Your task to perform on an android device: Open the Play Movies app and select the watchlist tab. Image 0: 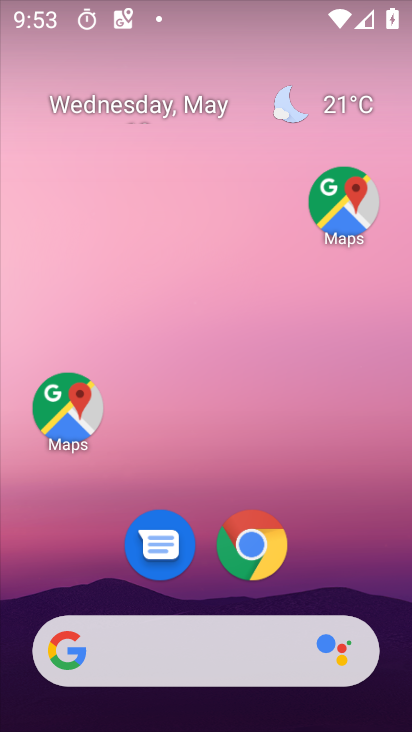
Step 0: drag from (311, 571) to (252, 65)
Your task to perform on an android device: Open the Play Movies app and select the watchlist tab. Image 1: 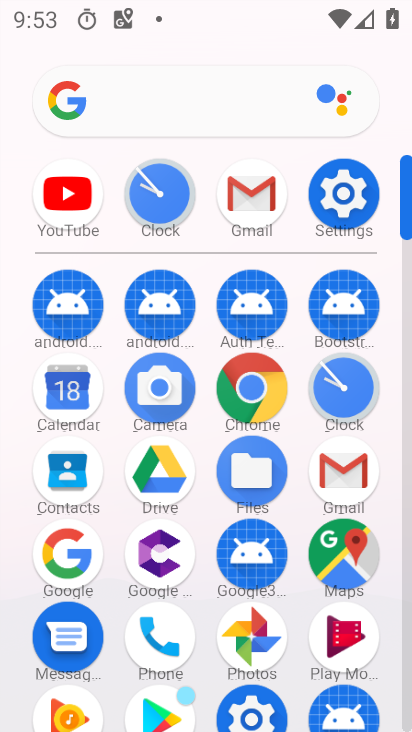
Step 1: click (356, 631)
Your task to perform on an android device: Open the Play Movies app and select the watchlist tab. Image 2: 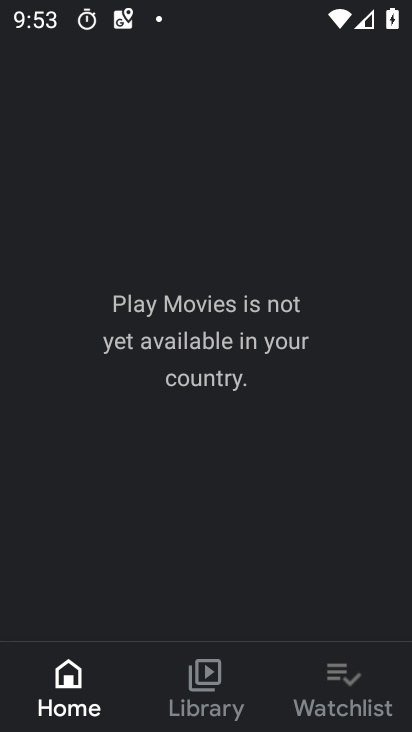
Step 2: click (335, 691)
Your task to perform on an android device: Open the Play Movies app and select the watchlist tab. Image 3: 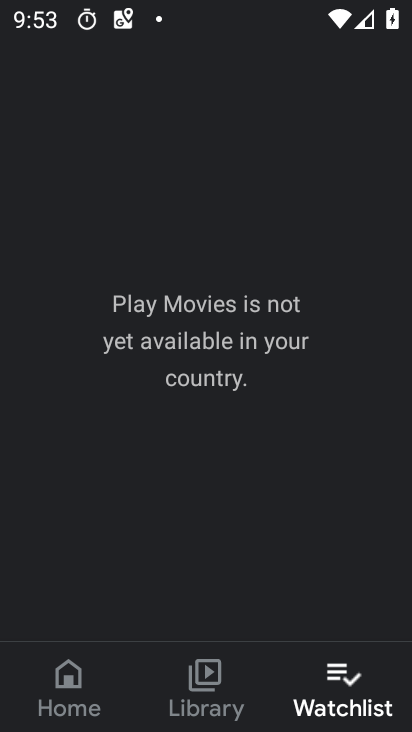
Step 3: task complete